Your task to perform on an android device: refresh tabs in the chrome app Image 0: 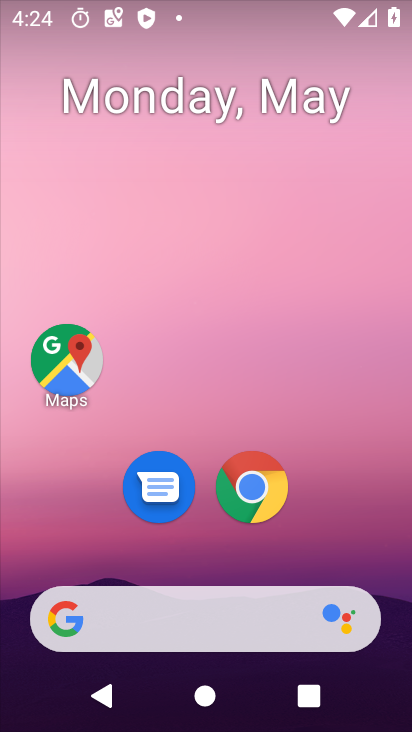
Step 0: click (251, 490)
Your task to perform on an android device: refresh tabs in the chrome app Image 1: 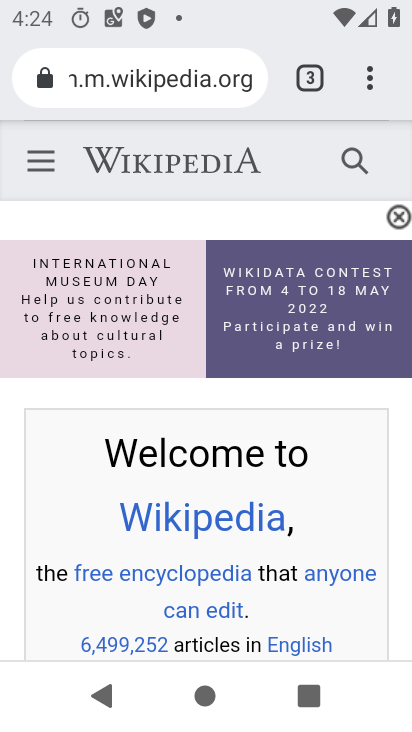
Step 1: click (370, 77)
Your task to perform on an android device: refresh tabs in the chrome app Image 2: 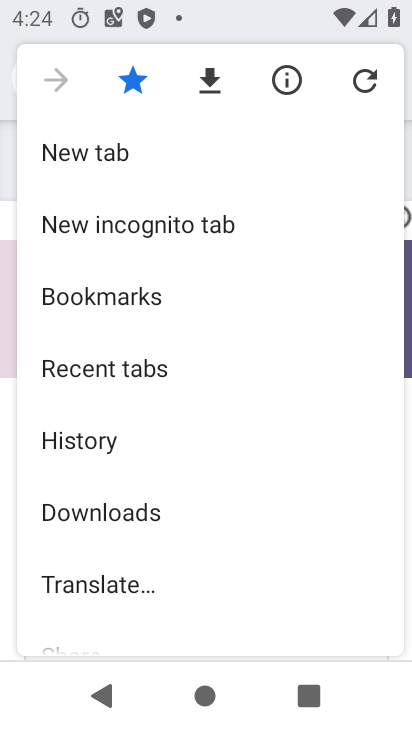
Step 2: click (364, 85)
Your task to perform on an android device: refresh tabs in the chrome app Image 3: 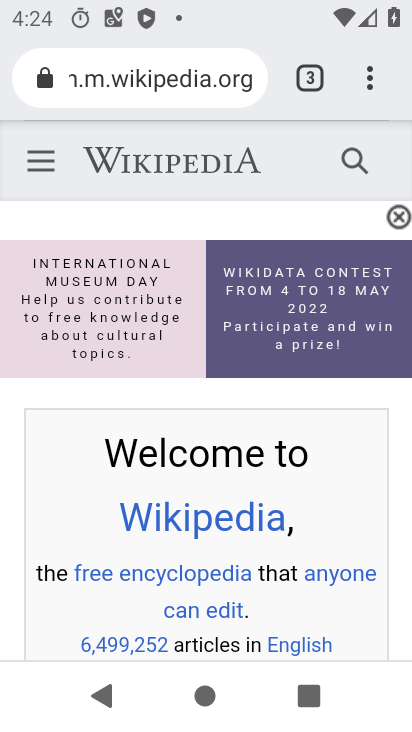
Step 3: task complete